Your task to perform on an android device: Show me productivity apps on the Play Store Image 0: 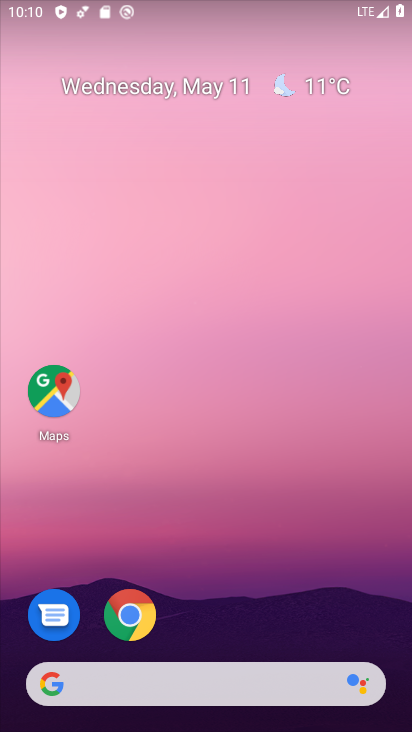
Step 0: drag from (298, 586) to (272, 107)
Your task to perform on an android device: Show me productivity apps on the Play Store Image 1: 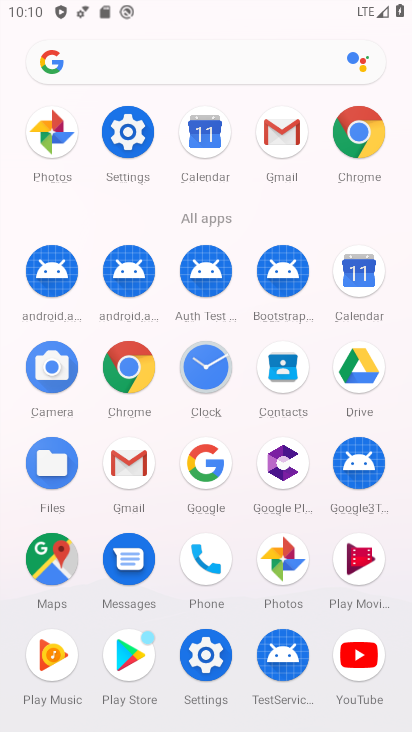
Step 1: click (141, 652)
Your task to perform on an android device: Show me productivity apps on the Play Store Image 2: 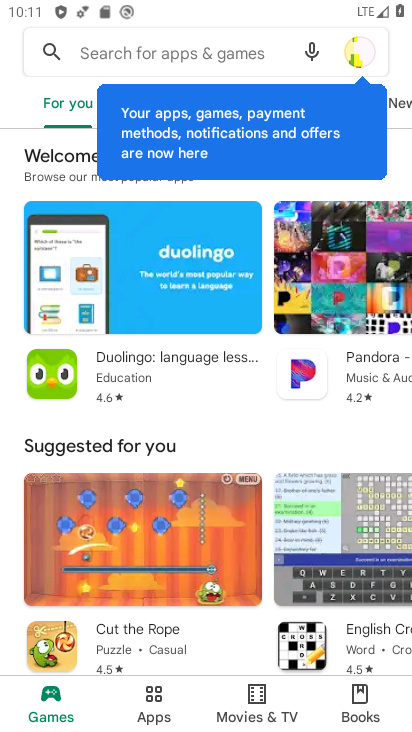
Step 2: click (151, 695)
Your task to perform on an android device: Show me productivity apps on the Play Store Image 3: 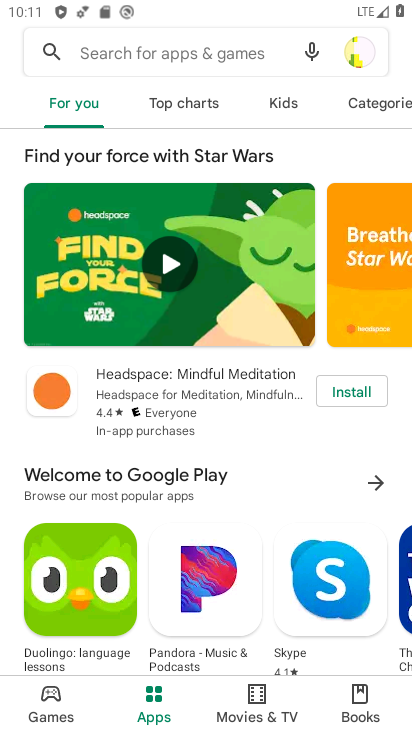
Step 3: drag from (170, 592) to (197, 180)
Your task to perform on an android device: Show me productivity apps on the Play Store Image 4: 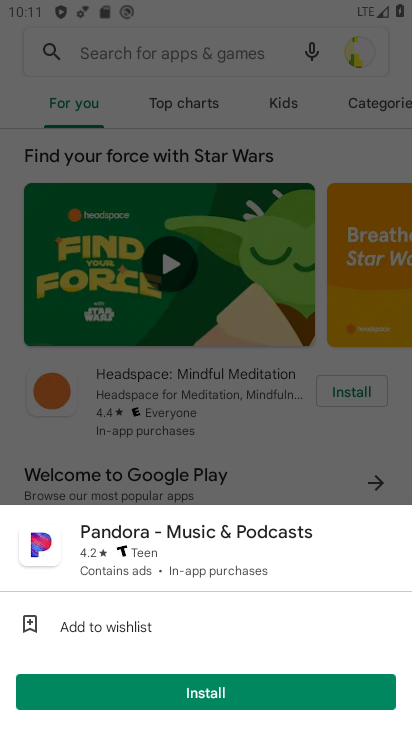
Step 4: click (187, 449)
Your task to perform on an android device: Show me productivity apps on the Play Store Image 5: 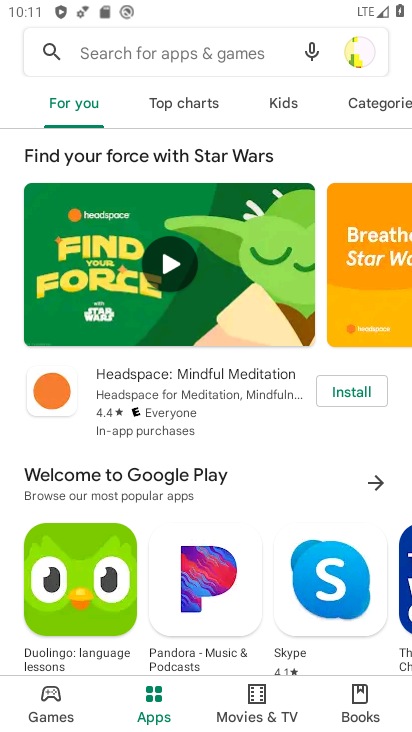
Step 5: task complete